Your task to perform on an android device: turn pop-ups on in chrome Image 0: 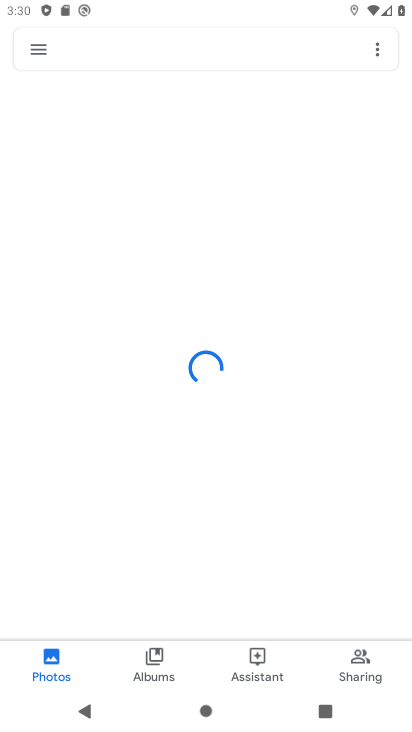
Step 0: press home button
Your task to perform on an android device: turn pop-ups on in chrome Image 1: 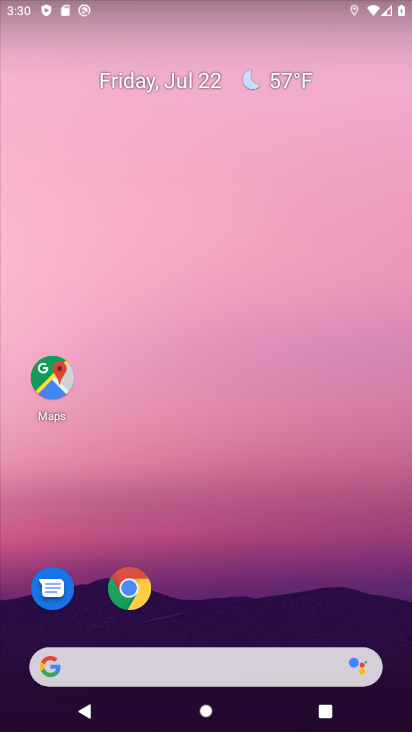
Step 1: drag from (215, 651) to (202, 92)
Your task to perform on an android device: turn pop-ups on in chrome Image 2: 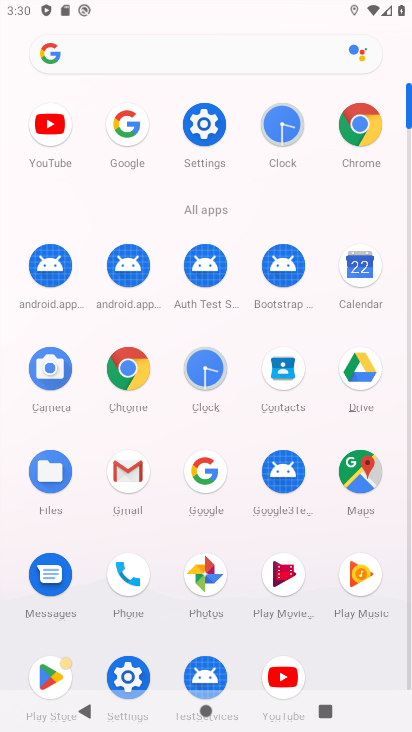
Step 2: click (120, 361)
Your task to perform on an android device: turn pop-ups on in chrome Image 3: 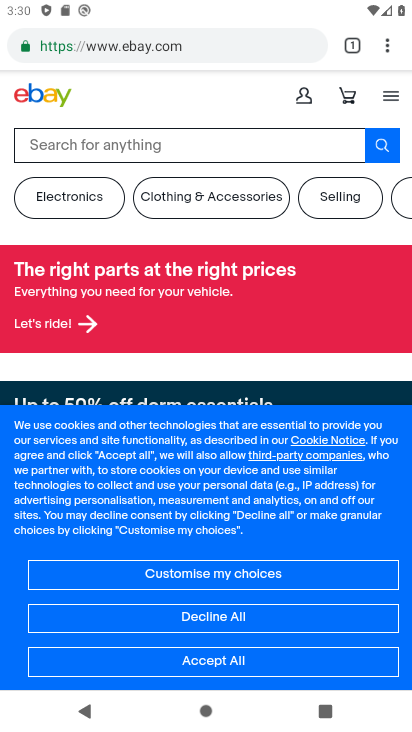
Step 3: drag from (389, 47) to (230, 544)
Your task to perform on an android device: turn pop-ups on in chrome Image 4: 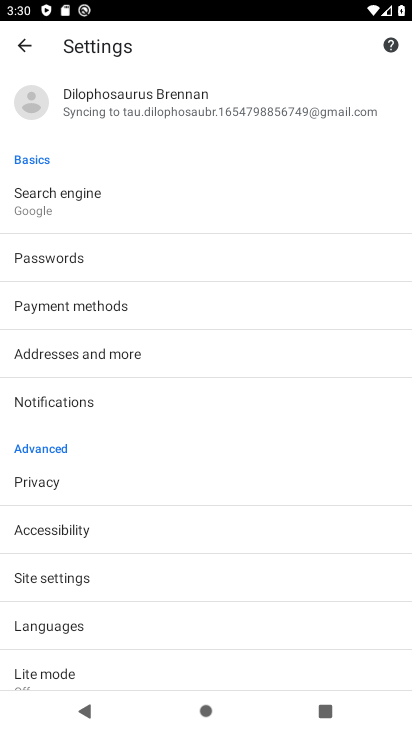
Step 4: click (87, 586)
Your task to perform on an android device: turn pop-ups on in chrome Image 5: 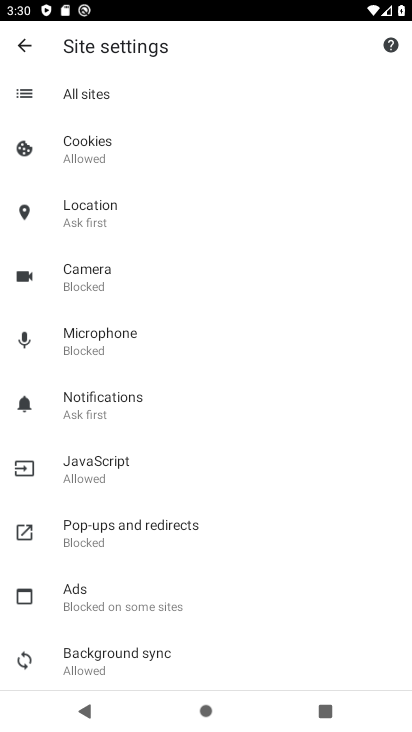
Step 5: click (137, 526)
Your task to perform on an android device: turn pop-ups on in chrome Image 6: 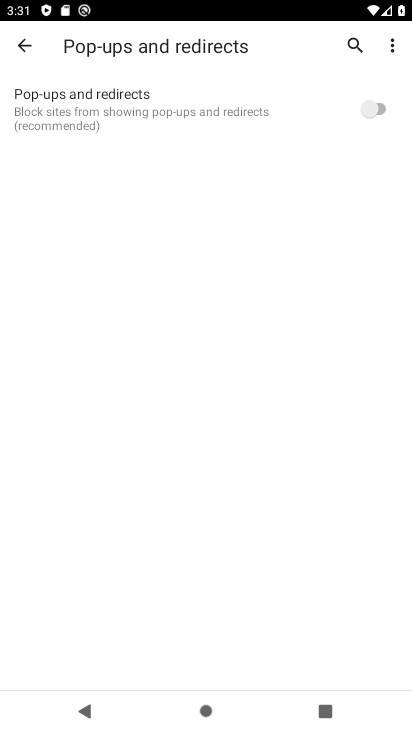
Step 6: click (368, 104)
Your task to perform on an android device: turn pop-ups on in chrome Image 7: 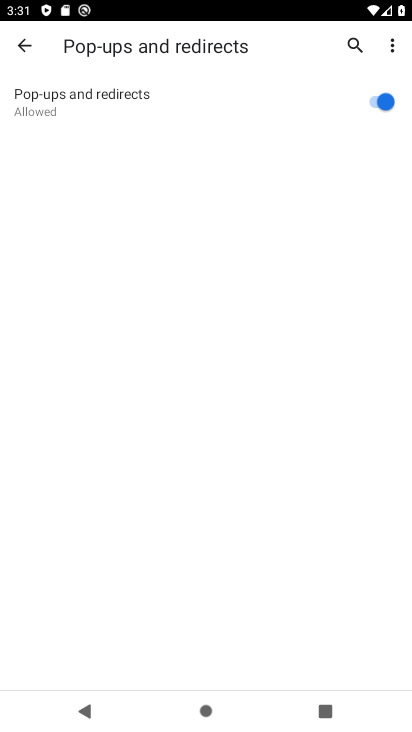
Step 7: task complete